Your task to perform on an android device: change notifications settings Image 0: 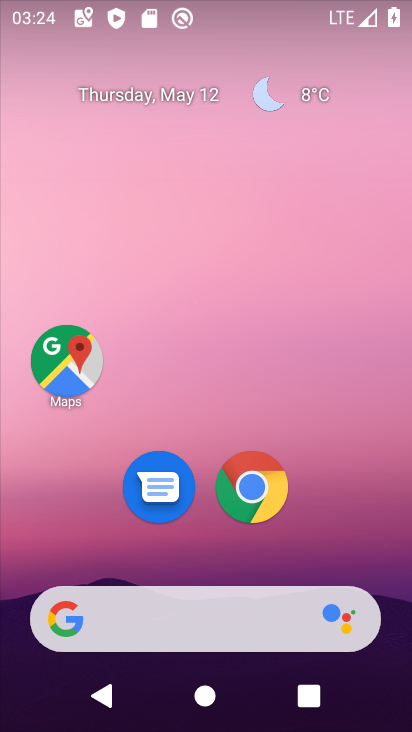
Step 0: drag from (347, 499) to (290, 36)
Your task to perform on an android device: change notifications settings Image 1: 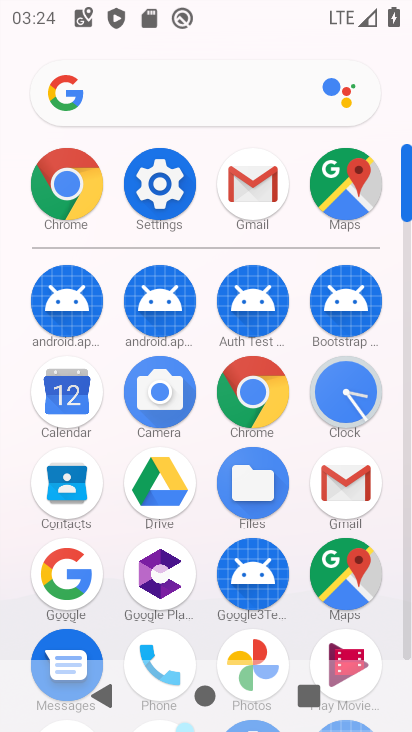
Step 1: click (152, 174)
Your task to perform on an android device: change notifications settings Image 2: 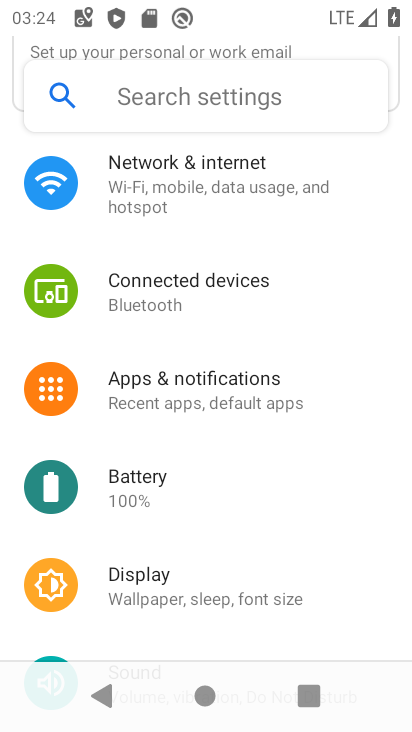
Step 2: drag from (196, 175) to (295, 580)
Your task to perform on an android device: change notifications settings Image 3: 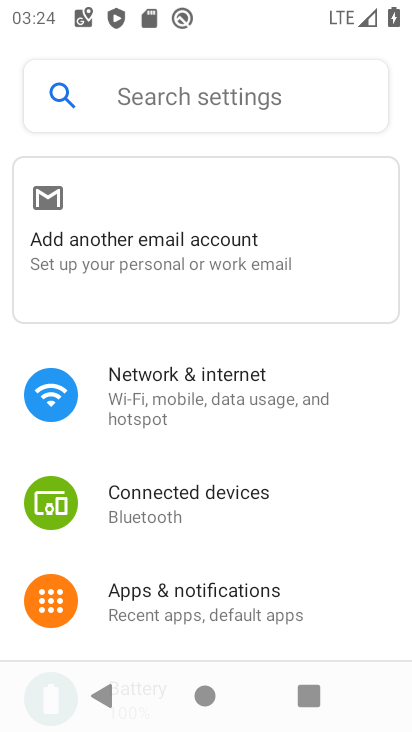
Step 3: drag from (237, 544) to (280, 369)
Your task to perform on an android device: change notifications settings Image 4: 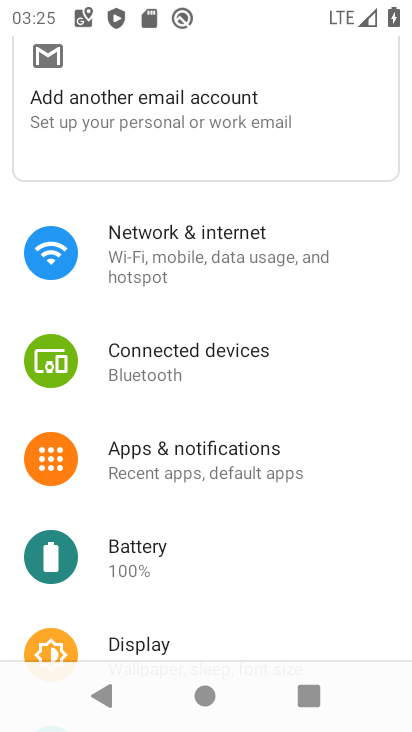
Step 4: click (241, 463)
Your task to perform on an android device: change notifications settings Image 5: 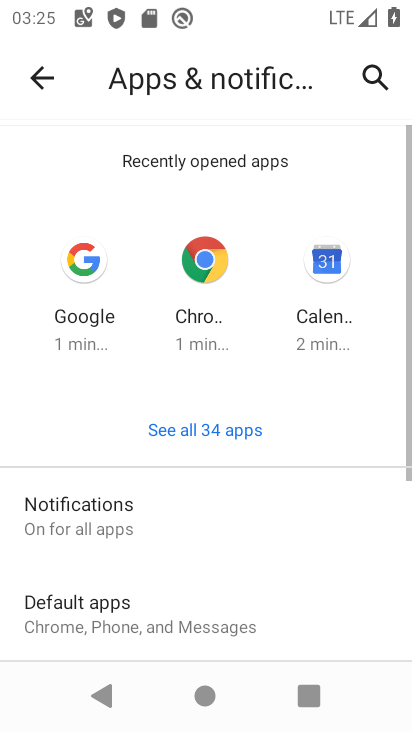
Step 5: click (132, 500)
Your task to perform on an android device: change notifications settings Image 6: 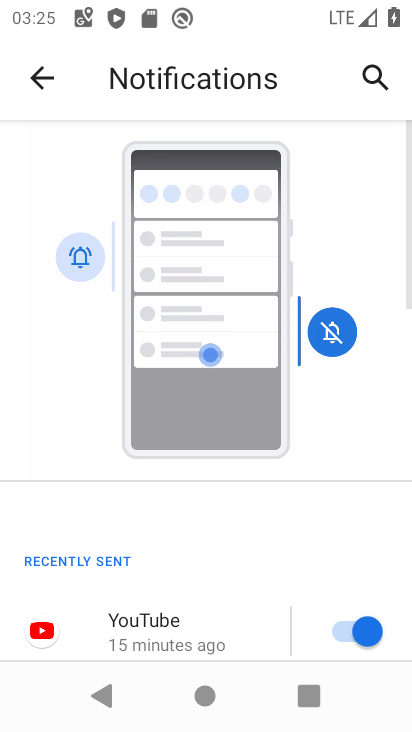
Step 6: task complete